Your task to perform on an android device: turn off location history Image 0: 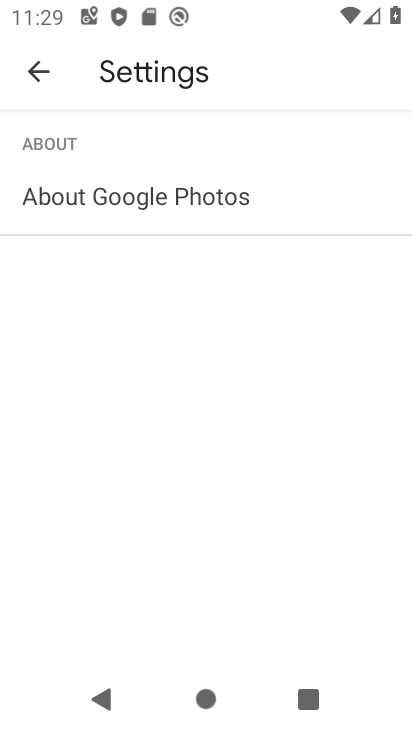
Step 0: press home button
Your task to perform on an android device: turn off location history Image 1: 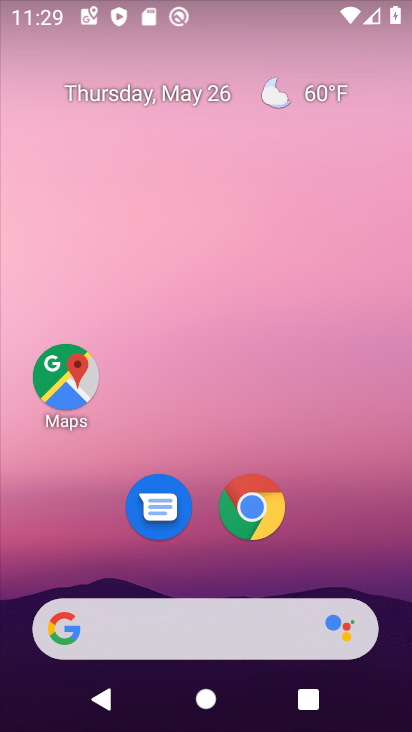
Step 1: drag from (368, 517) to (340, 207)
Your task to perform on an android device: turn off location history Image 2: 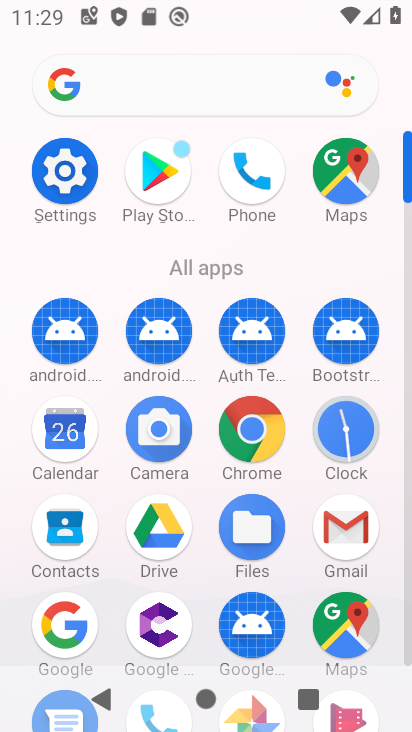
Step 2: click (70, 198)
Your task to perform on an android device: turn off location history Image 3: 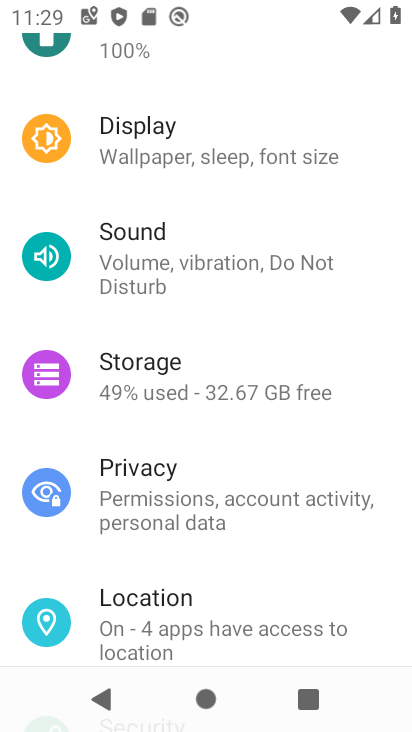
Step 3: click (200, 657)
Your task to perform on an android device: turn off location history Image 4: 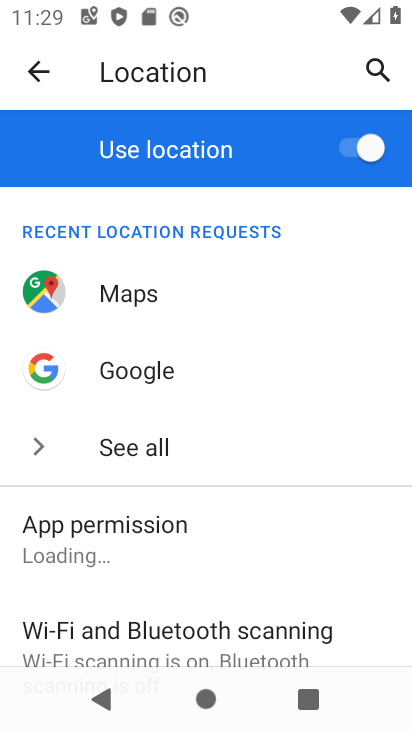
Step 4: drag from (190, 563) to (239, 344)
Your task to perform on an android device: turn off location history Image 5: 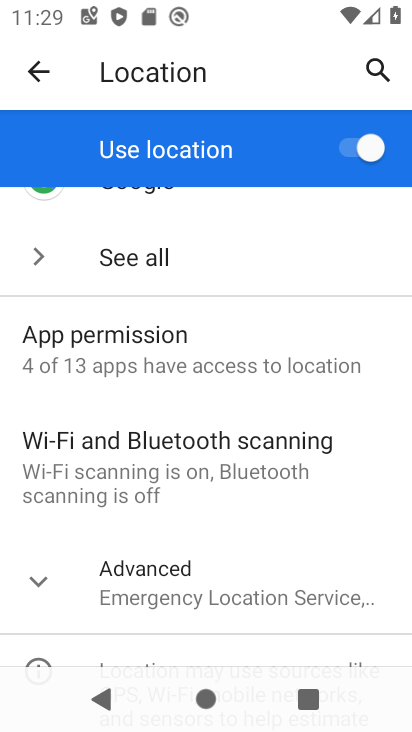
Step 5: click (158, 583)
Your task to perform on an android device: turn off location history Image 6: 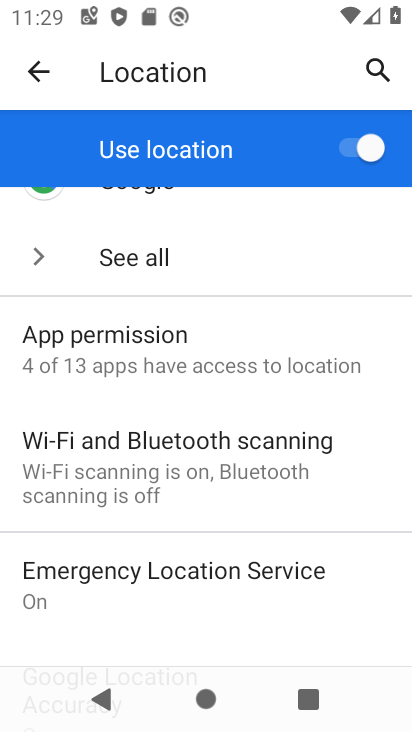
Step 6: drag from (194, 560) to (214, 329)
Your task to perform on an android device: turn off location history Image 7: 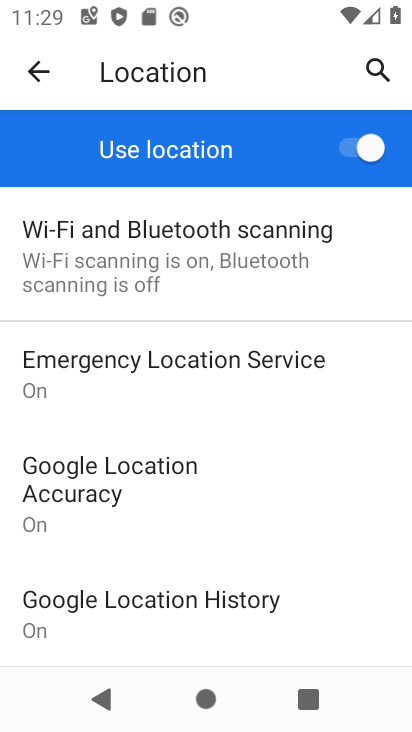
Step 7: click (92, 628)
Your task to perform on an android device: turn off location history Image 8: 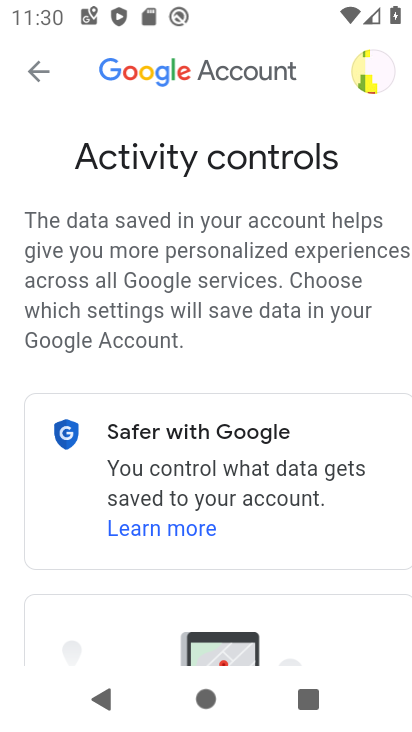
Step 8: drag from (221, 501) to (213, 260)
Your task to perform on an android device: turn off location history Image 9: 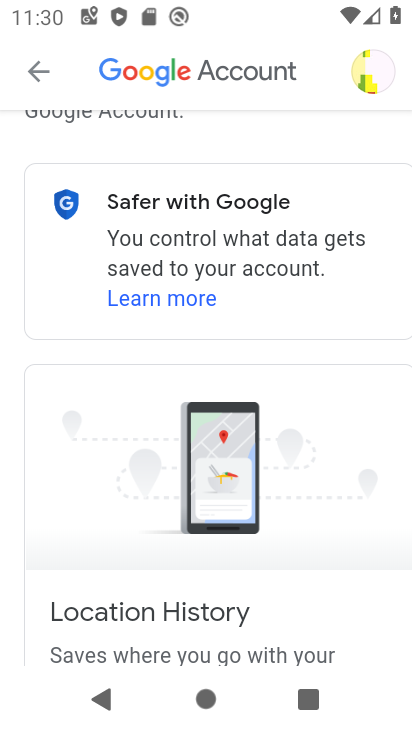
Step 9: drag from (246, 586) to (233, 299)
Your task to perform on an android device: turn off location history Image 10: 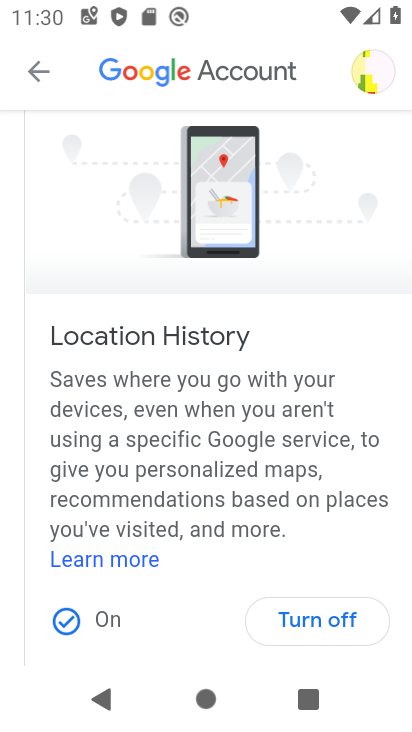
Step 10: click (336, 611)
Your task to perform on an android device: turn off location history Image 11: 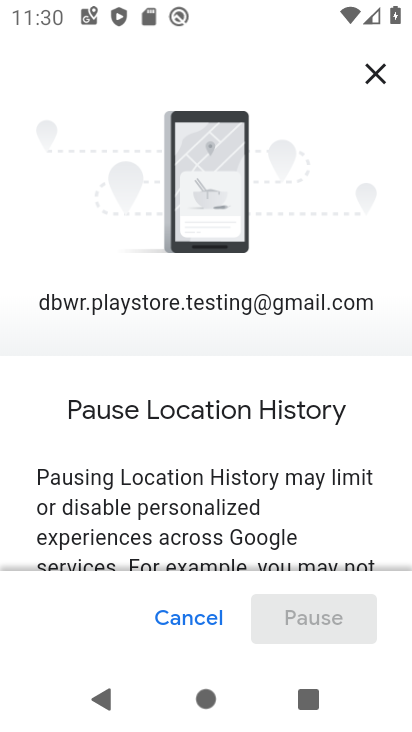
Step 11: drag from (317, 496) to (307, 237)
Your task to perform on an android device: turn off location history Image 12: 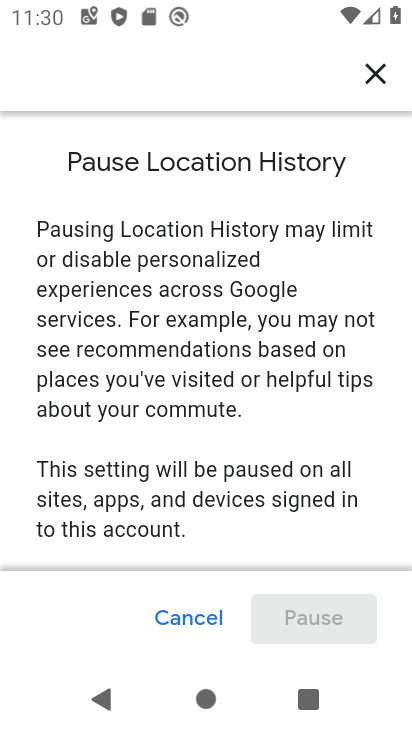
Step 12: drag from (301, 522) to (283, 157)
Your task to perform on an android device: turn off location history Image 13: 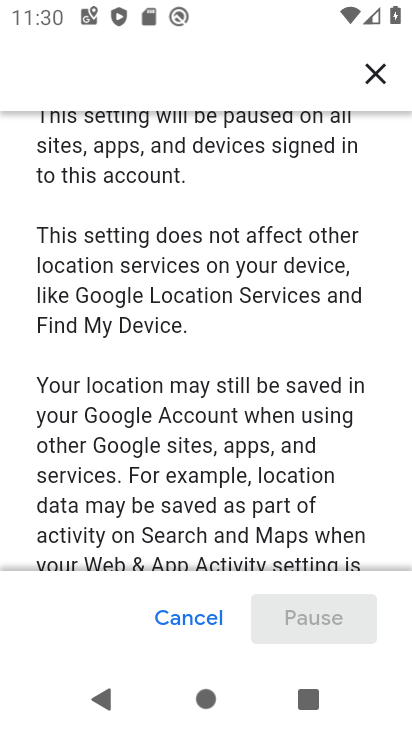
Step 13: drag from (300, 471) to (305, 126)
Your task to perform on an android device: turn off location history Image 14: 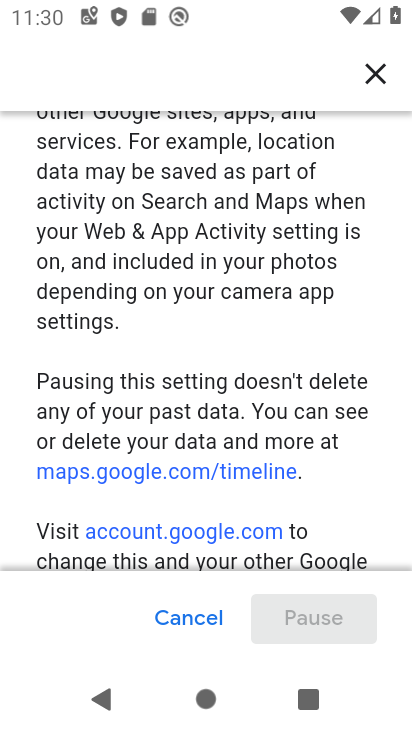
Step 14: drag from (315, 529) to (322, 130)
Your task to perform on an android device: turn off location history Image 15: 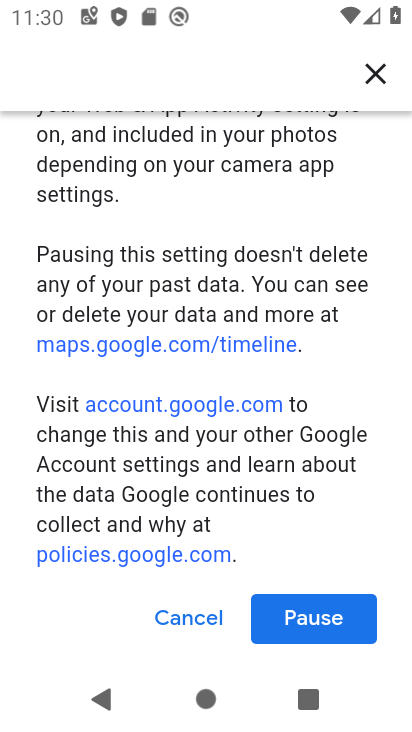
Step 15: click (296, 613)
Your task to perform on an android device: turn off location history Image 16: 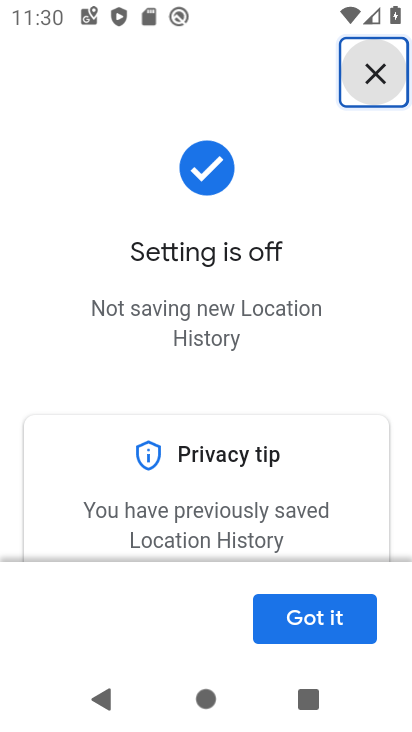
Step 16: click (337, 613)
Your task to perform on an android device: turn off location history Image 17: 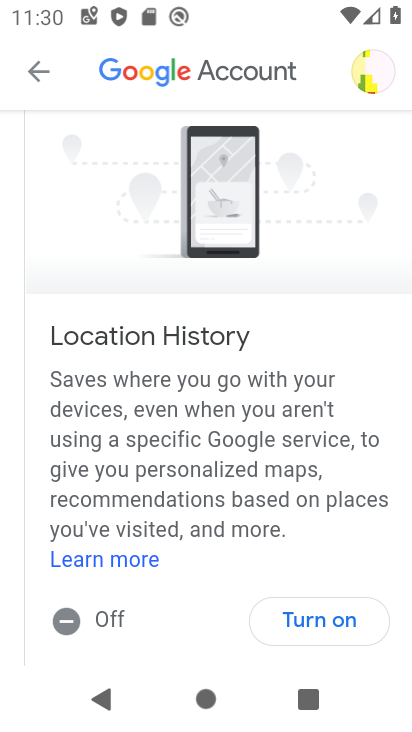
Step 17: task complete